Your task to perform on an android device: turn off translation in the chrome app Image 0: 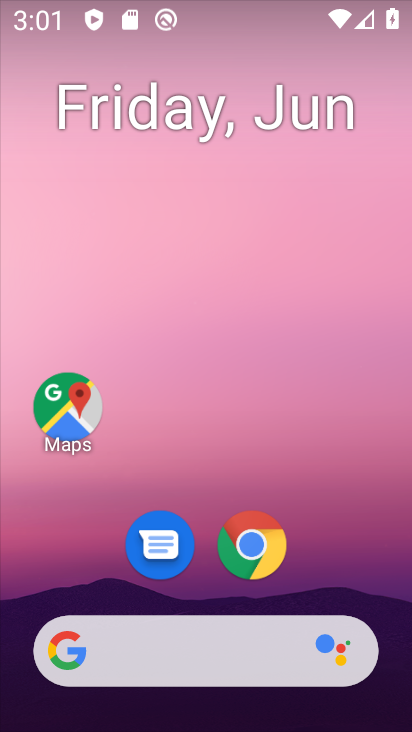
Step 0: click (264, 566)
Your task to perform on an android device: turn off translation in the chrome app Image 1: 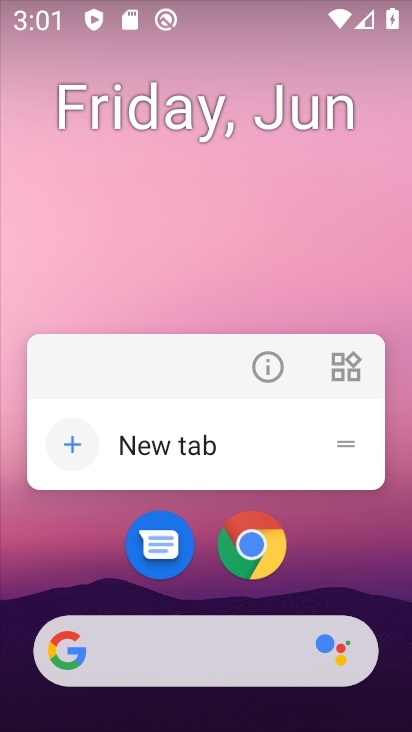
Step 1: click (243, 544)
Your task to perform on an android device: turn off translation in the chrome app Image 2: 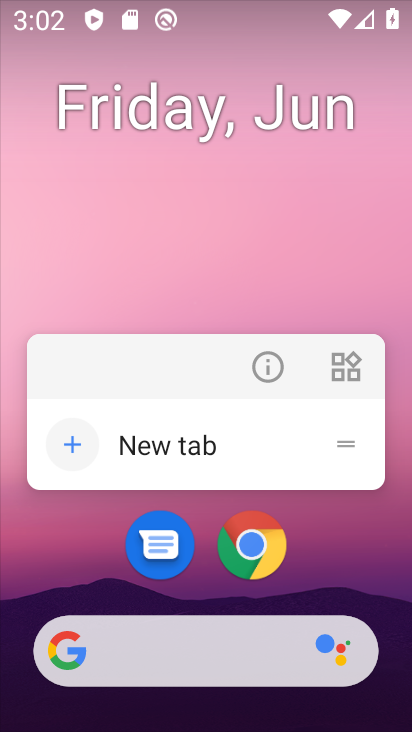
Step 2: click (230, 543)
Your task to perform on an android device: turn off translation in the chrome app Image 3: 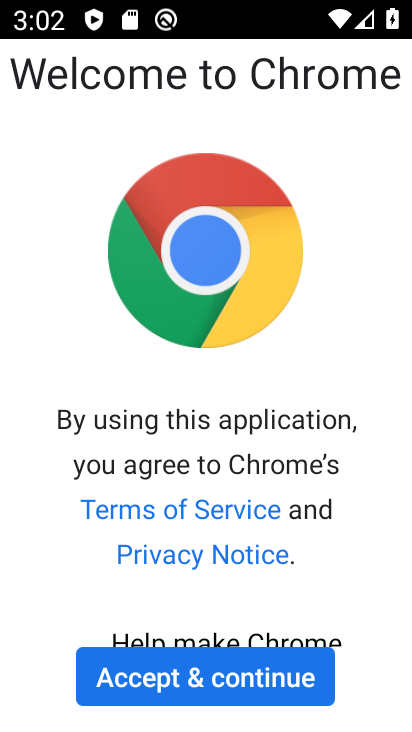
Step 3: click (207, 682)
Your task to perform on an android device: turn off translation in the chrome app Image 4: 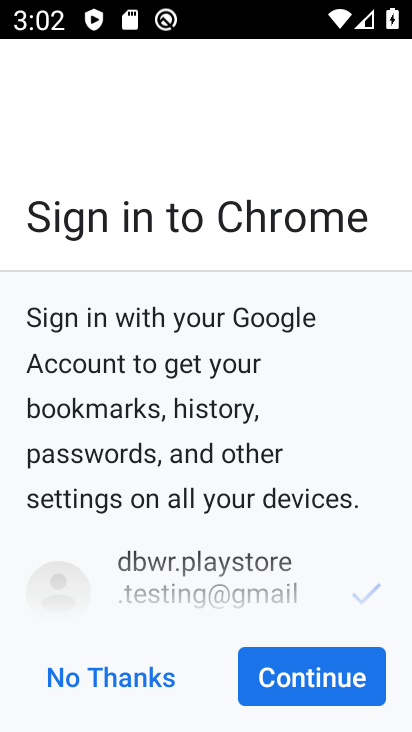
Step 4: click (288, 657)
Your task to perform on an android device: turn off translation in the chrome app Image 5: 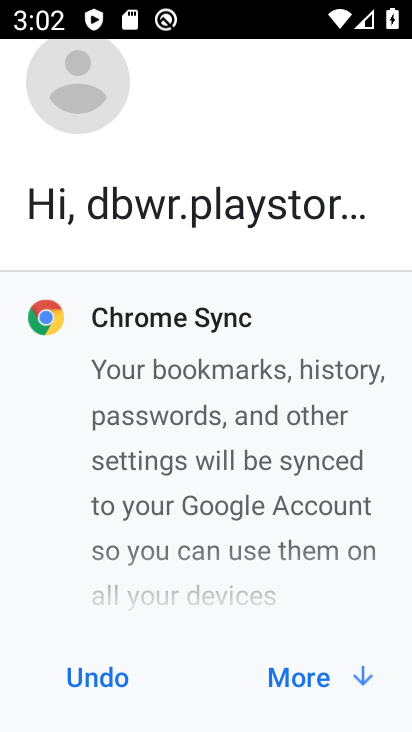
Step 5: click (308, 691)
Your task to perform on an android device: turn off translation in the chrome app Image 6: 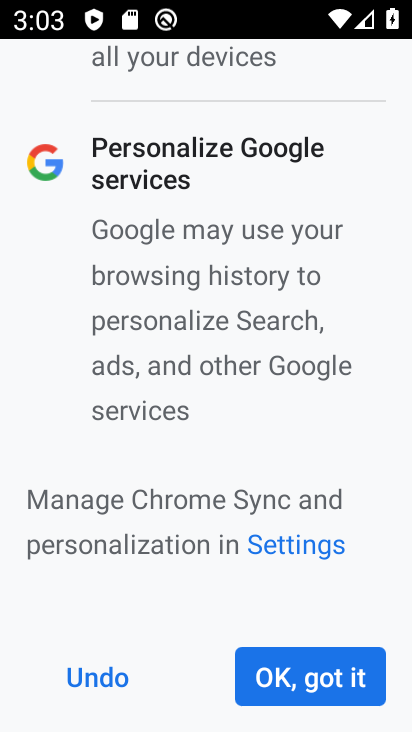
Step 6: click (327, 677)
Your task to perform on an android device: turn off translation in the chrome app Image 7: 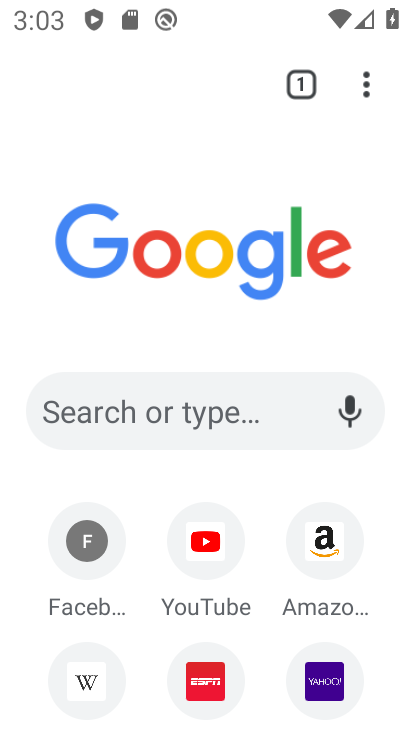
Step 7: click (365, 80)
Your task to perform on an android device: turn off translation in the chrome app Image 8: 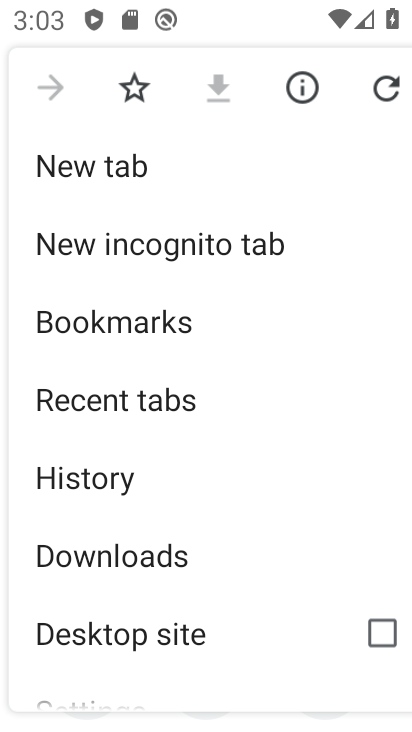
Step 8: drag from (212, 658) to (246, 217)
Your task to perform on an android device: turn off translation in the chrome app Image 9: 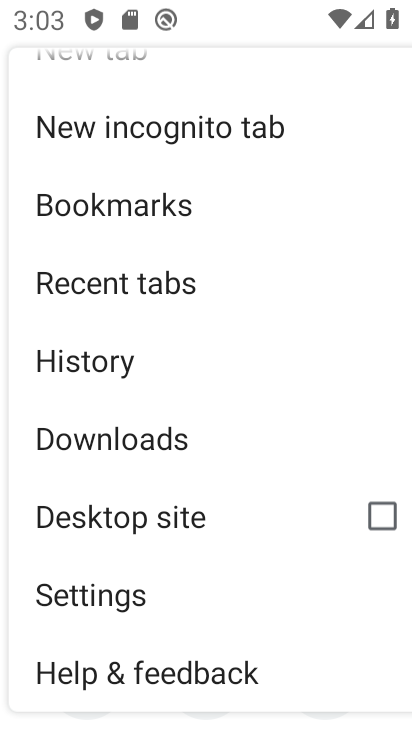
Step 9: click (105, 579)
Your task to perform on an android device: turn off translation in the chrome app Image 10: 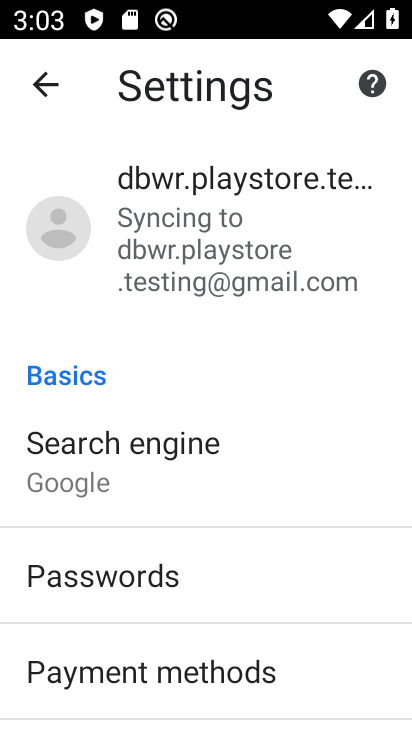
Step 10: drag from (157, 668) to (257, 129)
Your task to perform on an android device: turn off translation in the chrome app Image 11: 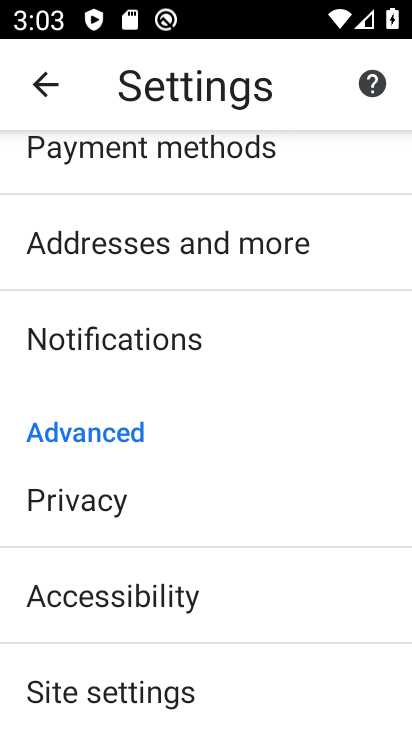
Step 11: drag from (138, 657) to (150, 380)
Your task to perform on an android device: turn off translation in the chrome app Image 12: 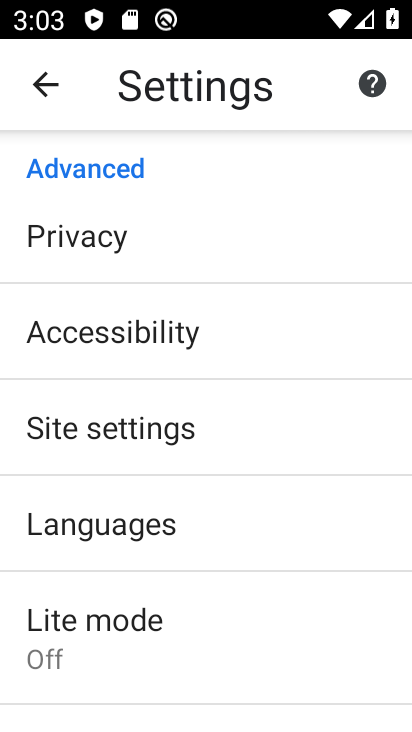
Step 12: click (132, 552)
Your task to perform on an android device: turn off translation in the chrome app Image 13: 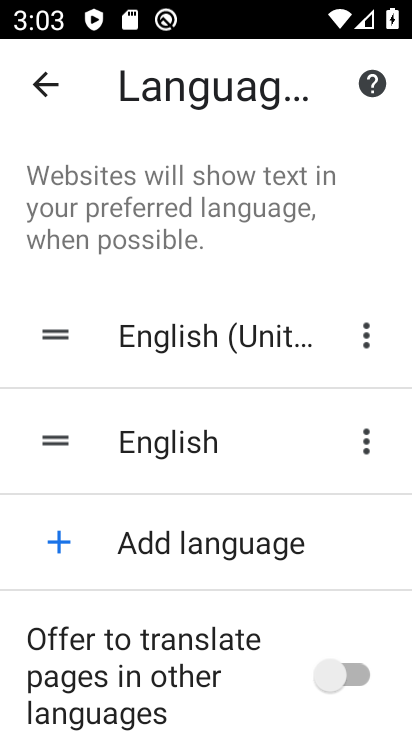
Step 13: task complete